Your task to perform on an android device: see tabs open on other devices in the chrome app Image 0: 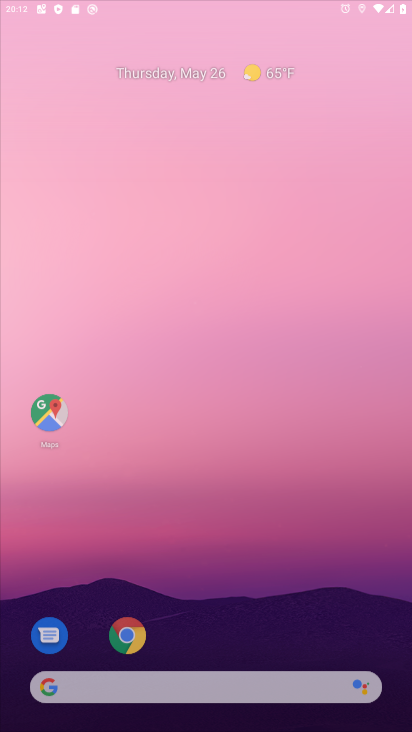
Step 0: click (358, 4)
Your task to perform on an android device: see tabs open on other devices in the chrome app Image 1: 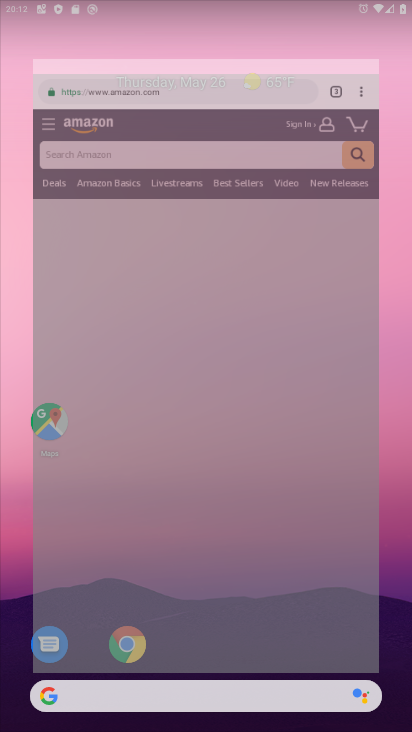
Step 1: drag from (191, 637) to (281, 96)
Your task to perform on an android device: see tabs open on other devices in the chrome app Image 2: 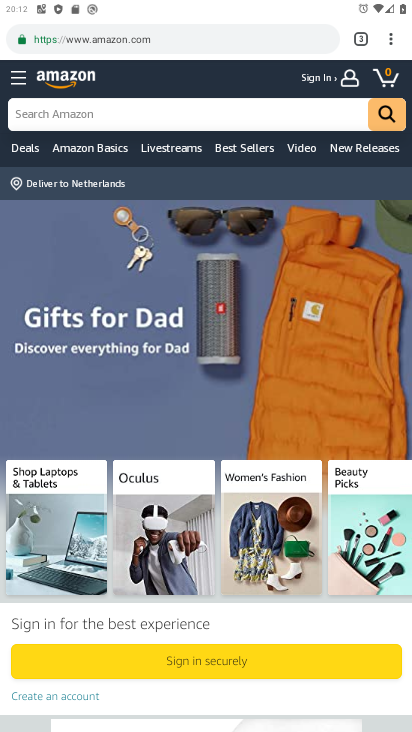
Step 2: click (388, 28)
Your task to perform on an android device: see tabs open on other devices in the chrome app Image 3: 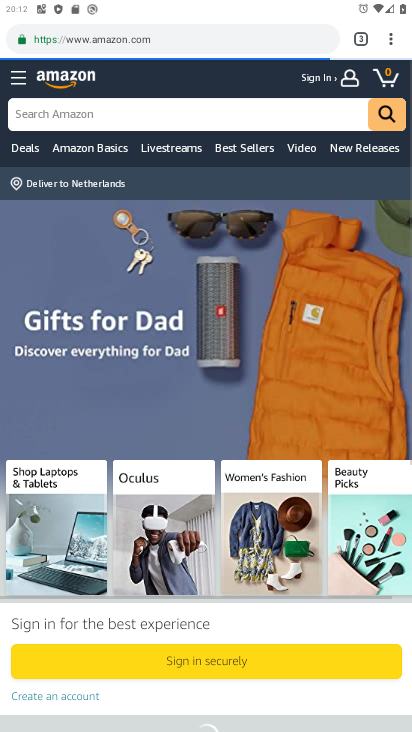
Step 3: task complete